Your task to perform on an android device: Search for pizza restaurants on Maps Image 0: 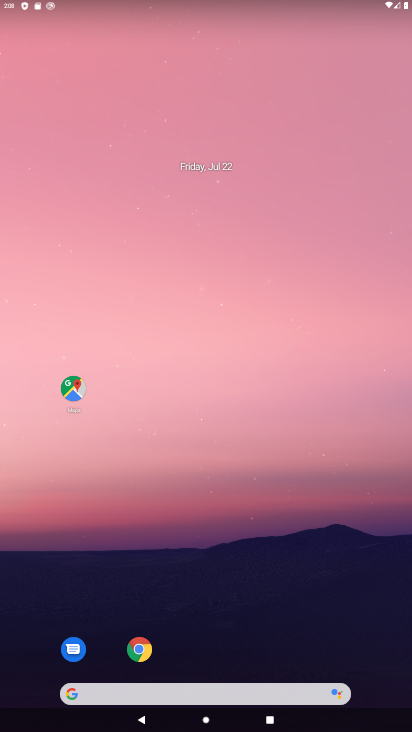
Step 0: drag from (180, 660) to (216, 134)
Your task to perform on an android device: Search for pizza restaurants on Maps Image 1: 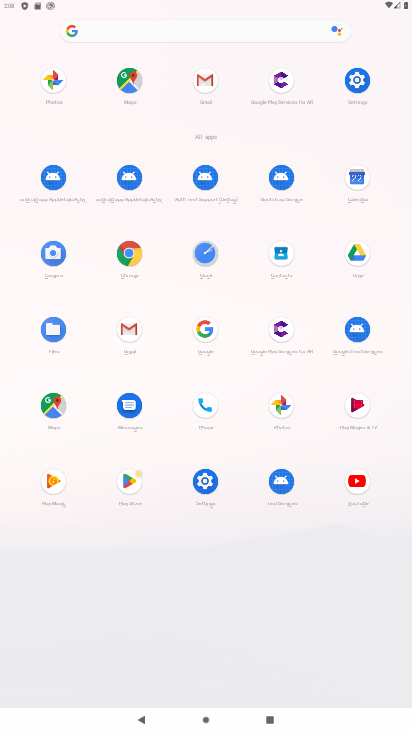
Step 1: click (137, 23)
Your task to perform on an android device: Search for pizza restaurants on Maps Image 2: 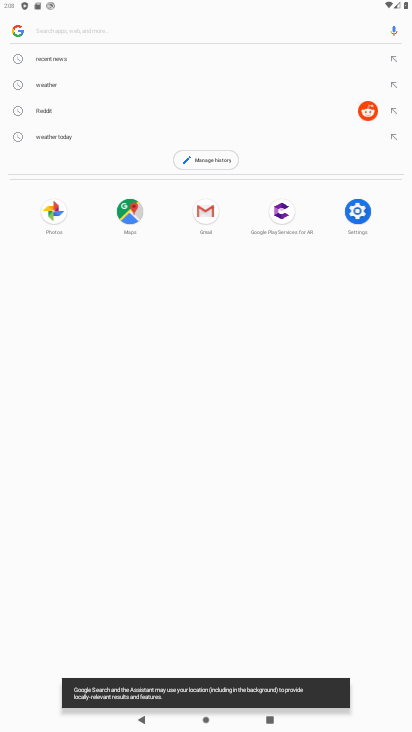
Step 2: drag from (235, 549) to (235, 67)
Your task to perform on an android device: Search for pizza restaurants on Maps Image 3: 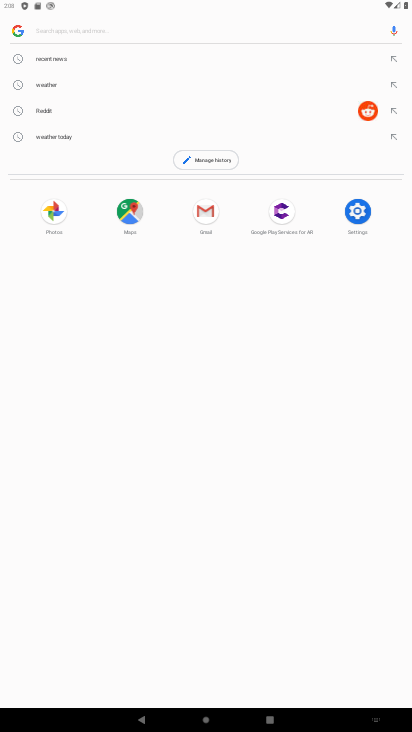
Step 3: click (59, 26)
Your task to perform on an android device: Search for pizza restaurants on Maps Image 4: 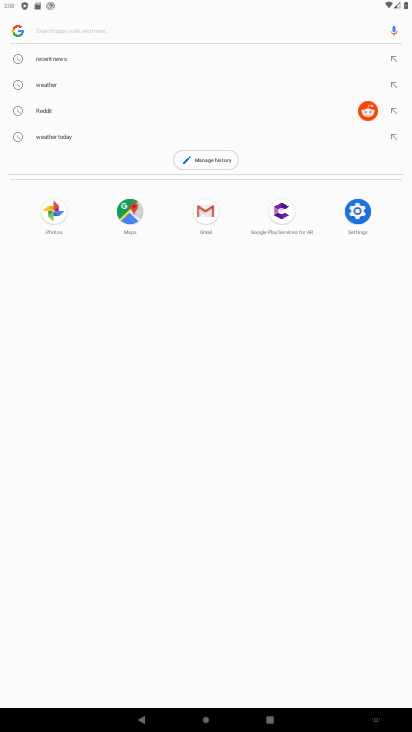
Step 4: type "pizza restaurants"
Your task to perform on an android device: Search for pizza restaurants on Maps Image 5: 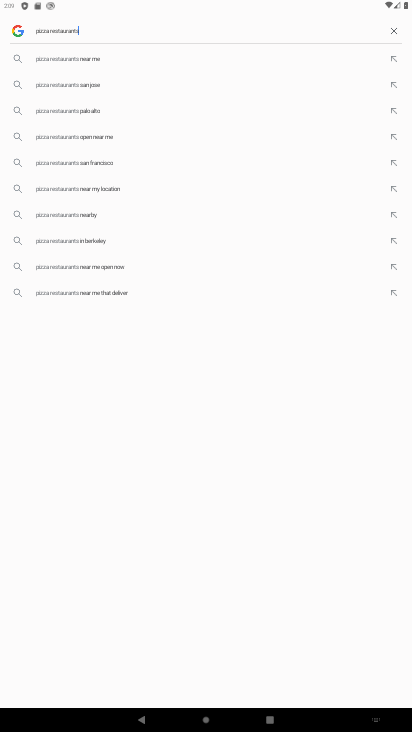
Step 5: click (392, 30)
Your task to perform on an android device: Search for pizza restaurants on Maps Image 6: 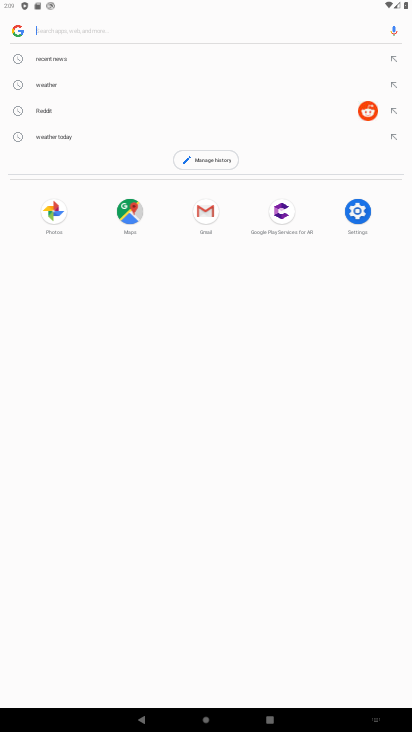
Step 6: press home button
Your task to perform on an android device: Search for pizza restaurants on Maps Image 7: 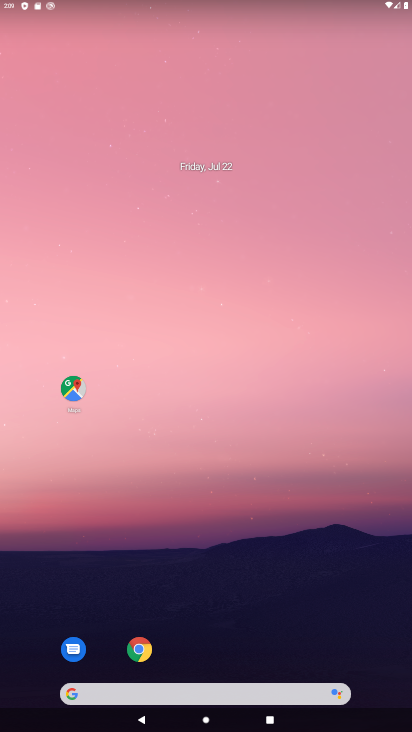
Step 7: drag from (177, 636) to (384, 384)
Your task to perform on an android device: Search for pizza restaurants on Maps Image 8: 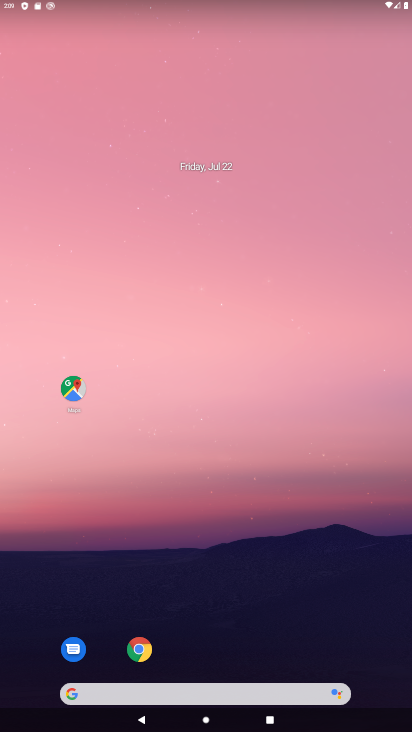
Step 8: drag from (185, 661) to (275, 12)
Your task to perform on an android device: Search for pizza restaurants on Maps Image 9: 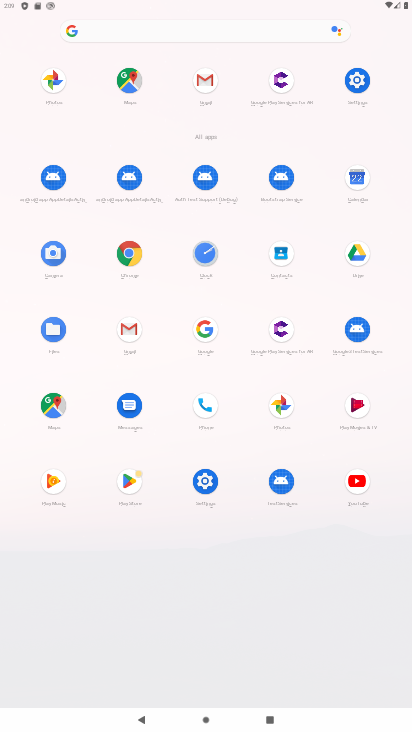
Step 9: click (46, 404)
Your task to perform on an android device: Search for pizza restaurants on Maps Image 10: 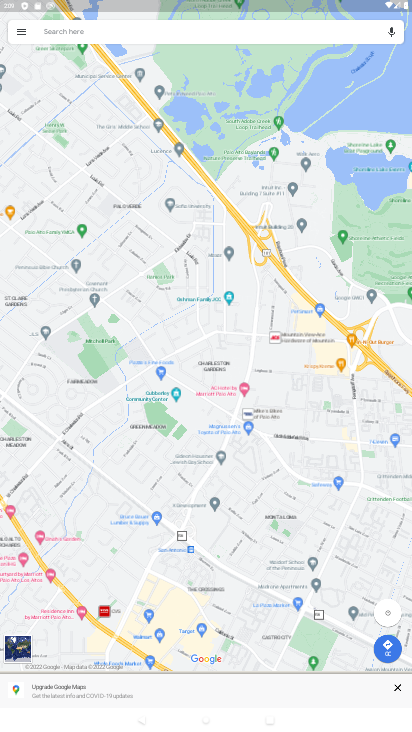
Step 10: click (112, 28)
Your task to perform on an android device: Search for pizza restaurants on Maps Image 11: 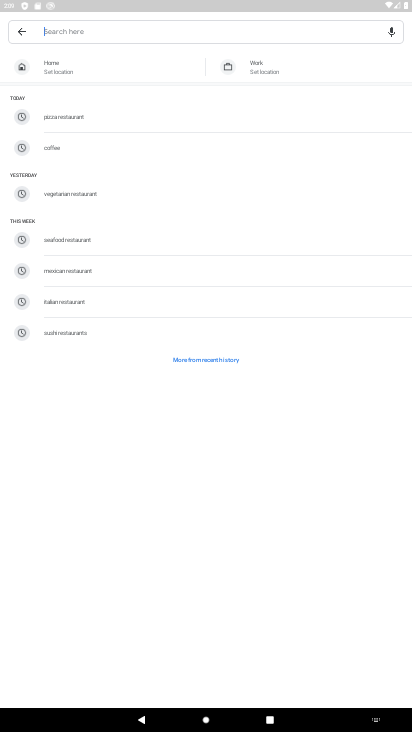
Step 11: click (91, 113)
Your task to perform on an android device: Search for pizza restaurants on Maps Image 12: 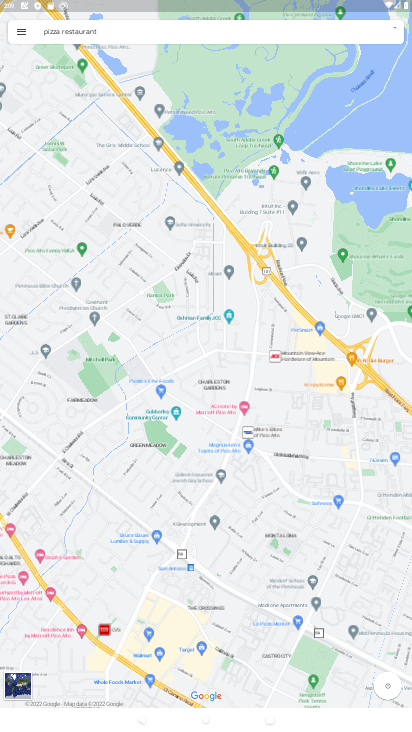
Step 12: task complete